Your task to perform on an android device: Open the stopwatch Image 0: 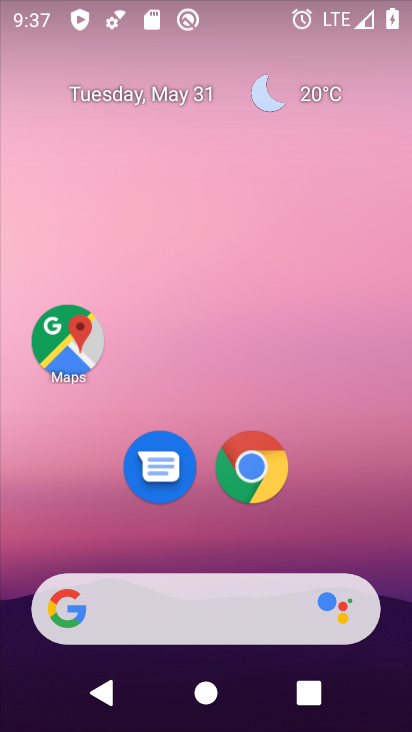
Step 0: drag from (204, 540) to (246, 144)
Your task to perform on an android device: Open the stopwatch Image 1: 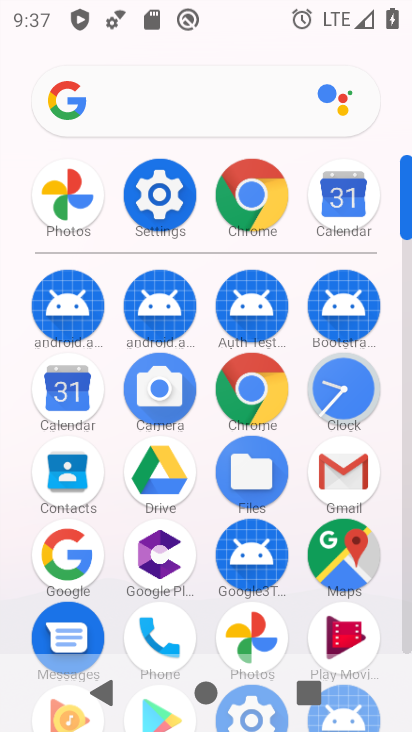
Step 1: click (343, 391)
Your task to perform on an android device: Open the stopwatch Image 2: 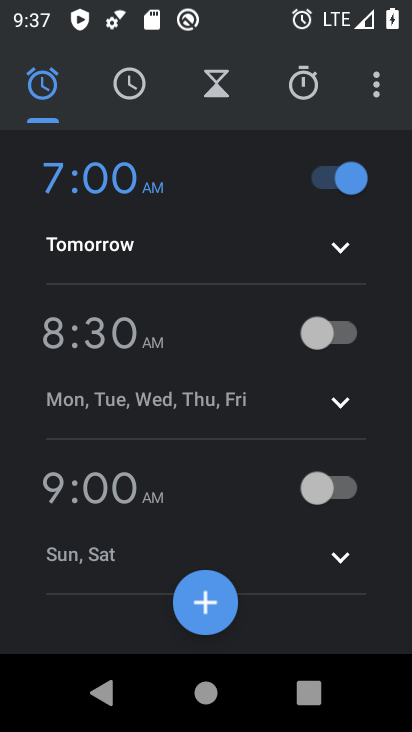
Step 2: click (328, 83)
Your task to perform on an android device: Open the stopwatch Image 3: 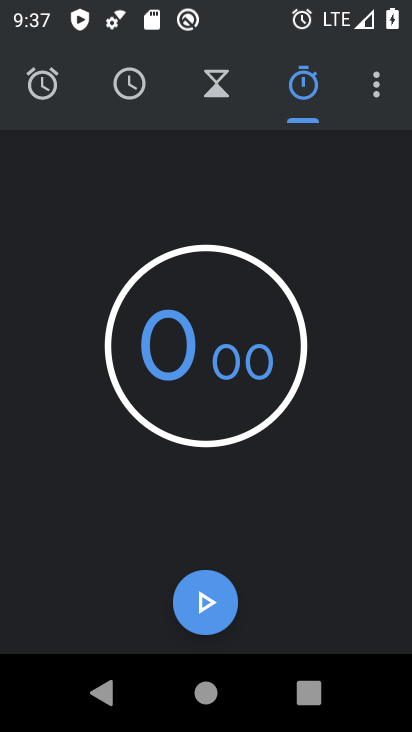
Step 3: click (205, 615)
Your task to perform on an android device: Open the stopwatch Image 4: 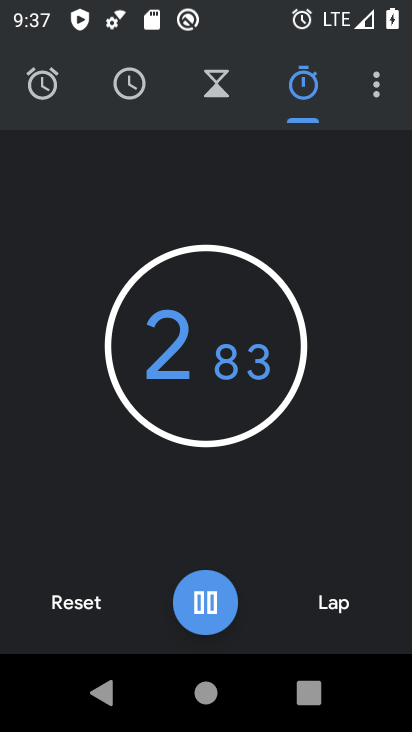
Step 4: task complete